Your task to perform on an android device: What is the news today? Image 0: 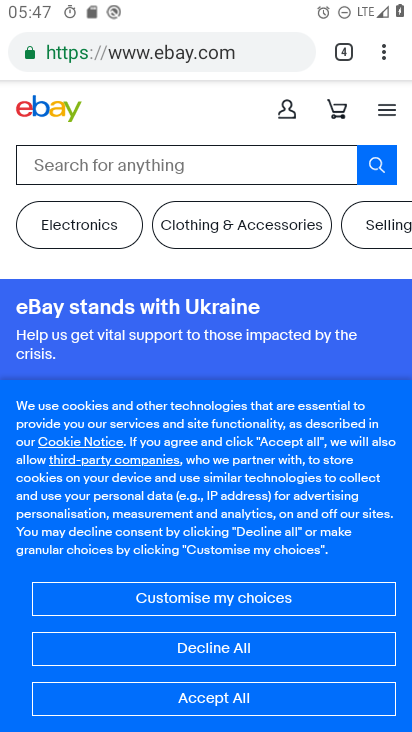
Step 0: press home button
Your task to perform on an android device: What is the news today? Image 1: 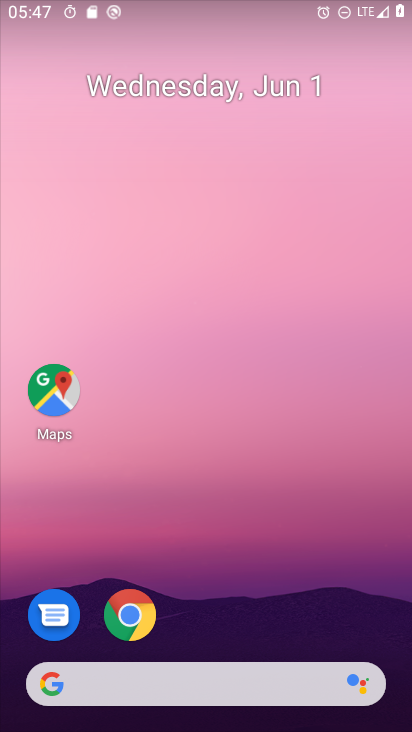
Step 1: drag from (214, 662) to (237, 4)
Your task to perform on an android device: What is the news today? Image 2: 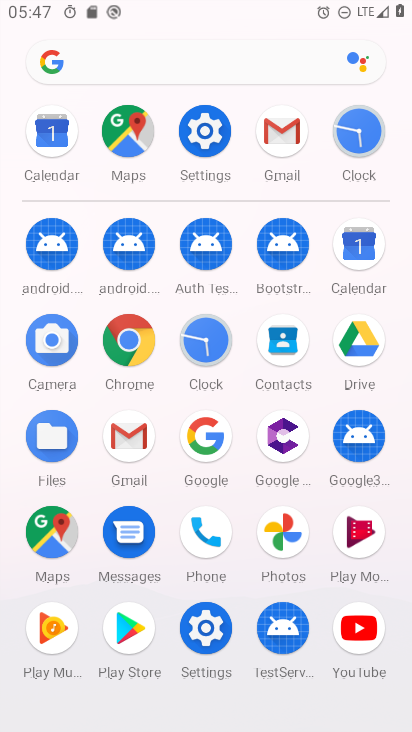
Step 2: click (130, 341)
Your task to perform on an android device: What is the news today? Image 3: 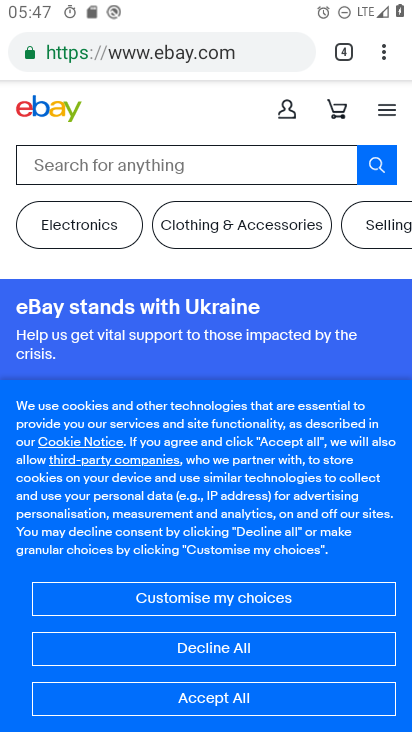
Step 3: click (262, 53)
Your task to perform on an android device: What is the news today? Image 4: 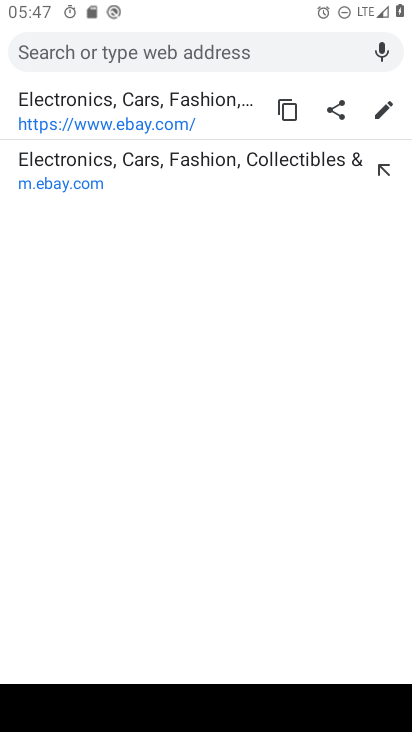
Step 4: type "news today"
Your task to perform on an android device: What is the news today? Image 5: 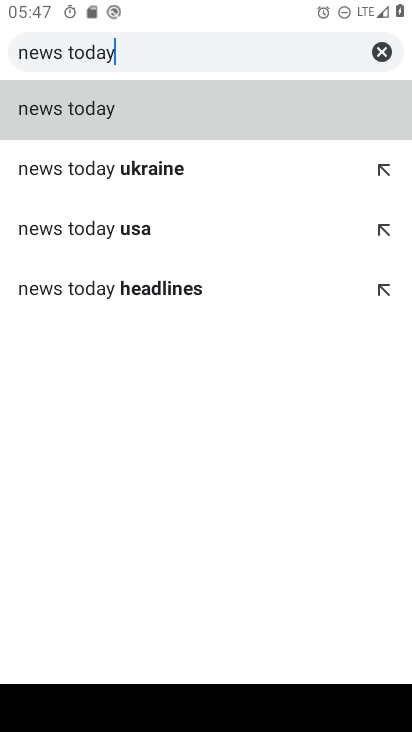
Step 5: click (89, 96)
Your task to perform on an android device: What is the news today? Image 6: 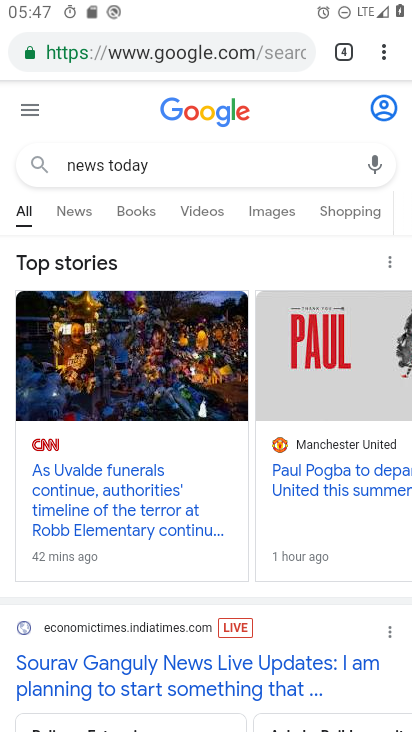
Step 6: task complete